Your task to perform on an android device: open sync settings in chrome Image 0: 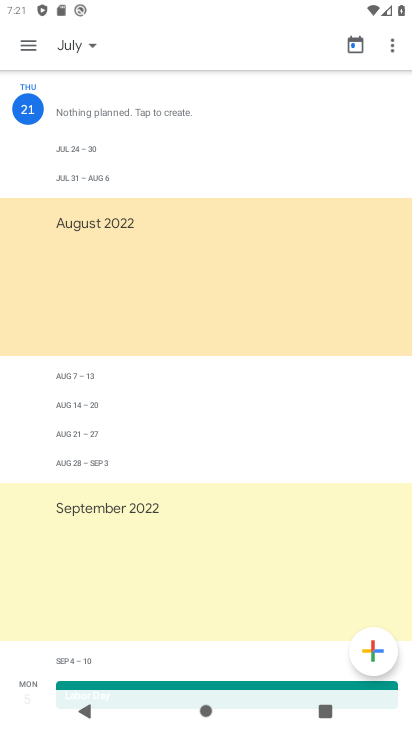
Step 0: press home button
Your task to perform on an android device: open sync settings in chrome Image 1: 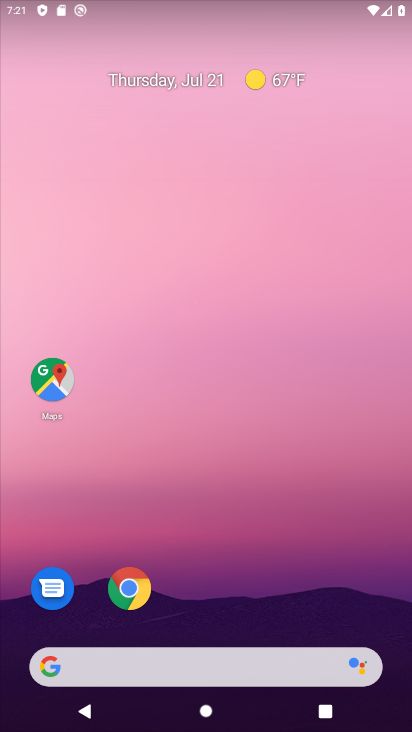
Step 1: click (135, 586)
Your task to perform on an android device: open sync settings in chrome Image 2: 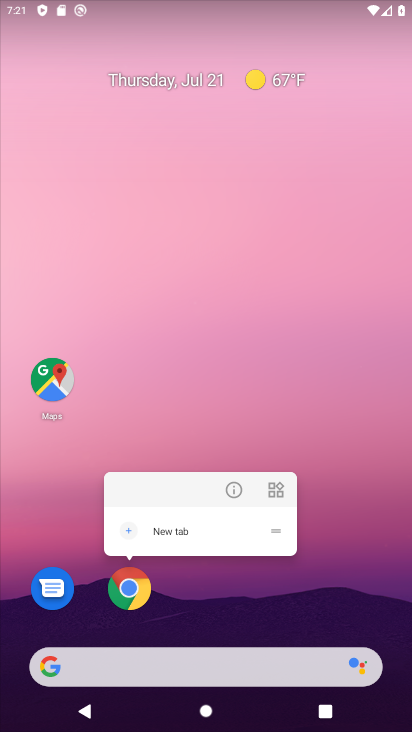
Step 2: click (135, 586)
Your task to perform on an android device: open sync settings in chrome Image 3: 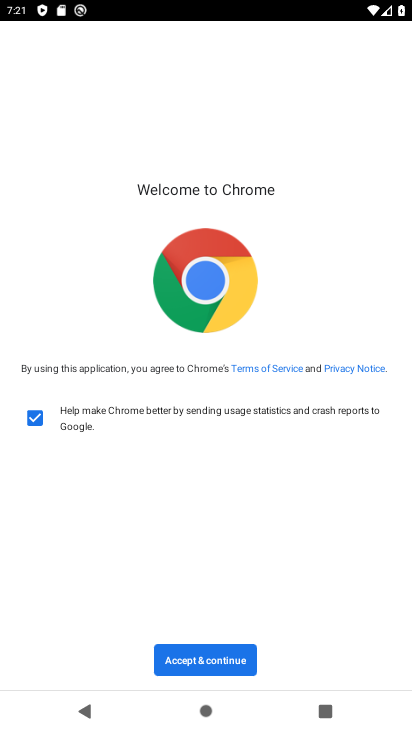
Step 3: click (232, 660)
Your task to perform on an android device: open sync settings in chrome Image 4: 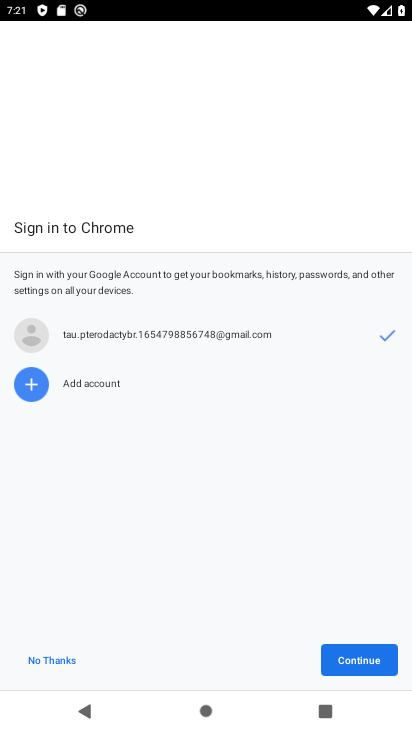
Step 4: click (368, 656)
Your task to perform on an android device: open sync settings in chrome Image 5: 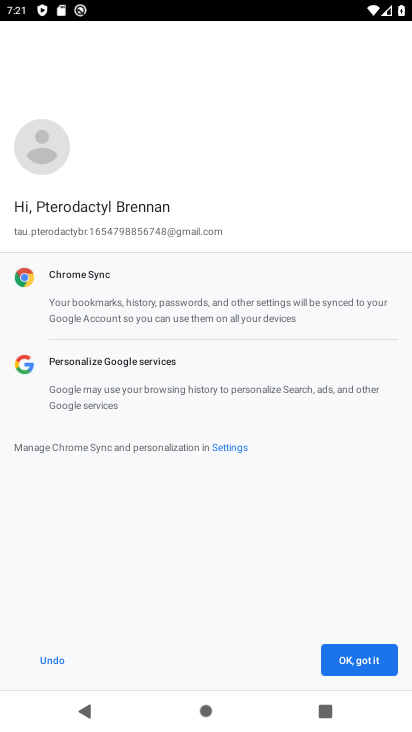
Step 5: click (352, 665)
Your task to perform on an android device: open sync settings in chrome Image 6: 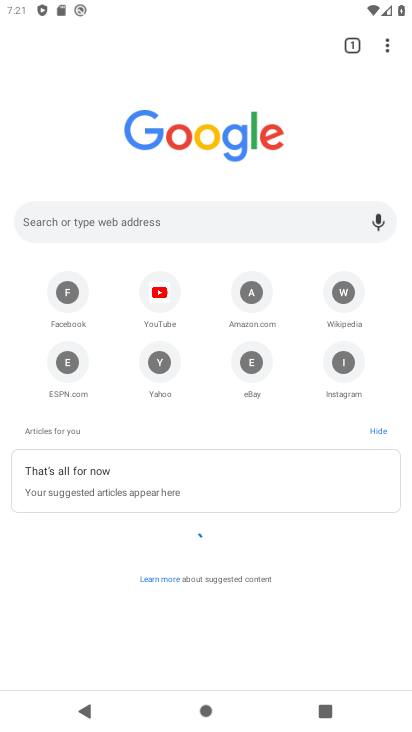
Step 6: click (387, 40)
Your task to perform on an android device: open sync settings in chrome Image 7: 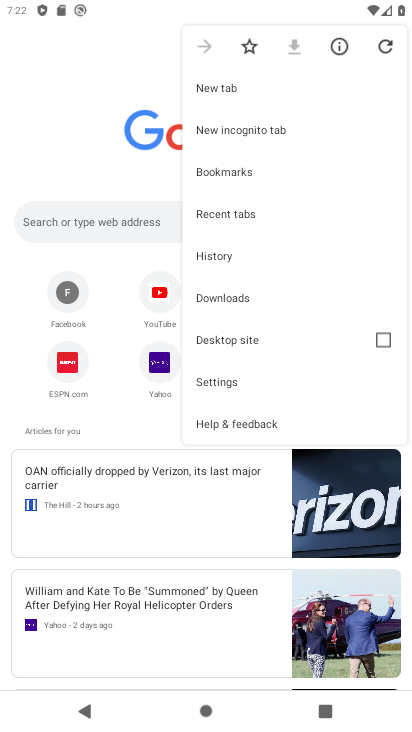
Step 7: click (233, 376)
Your task to perform on an android device: open sync settings in chrome Image 8: 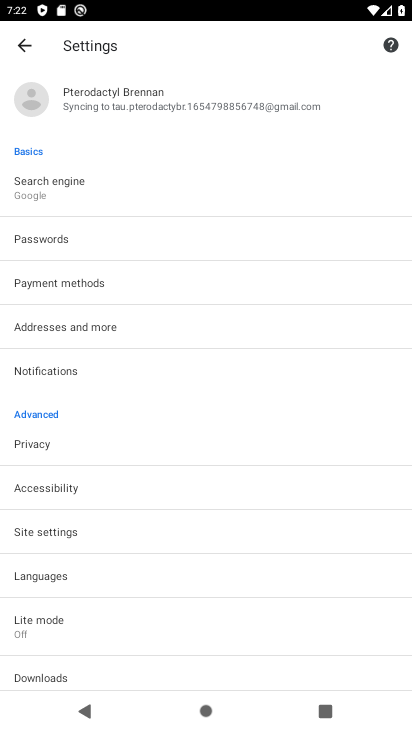
Step 8: click (175, 93)
Your task to perform on an android device: open sync settings in chrome Image 9: 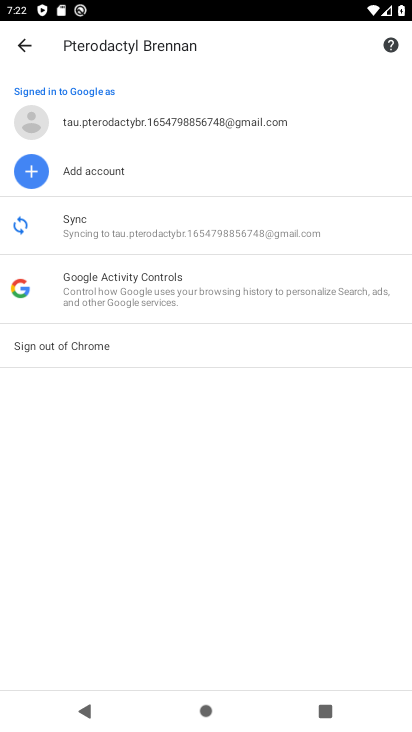
Step 9: click (134, 226)
Your task to perform on an android device: open sync settings in chrome Image 10: 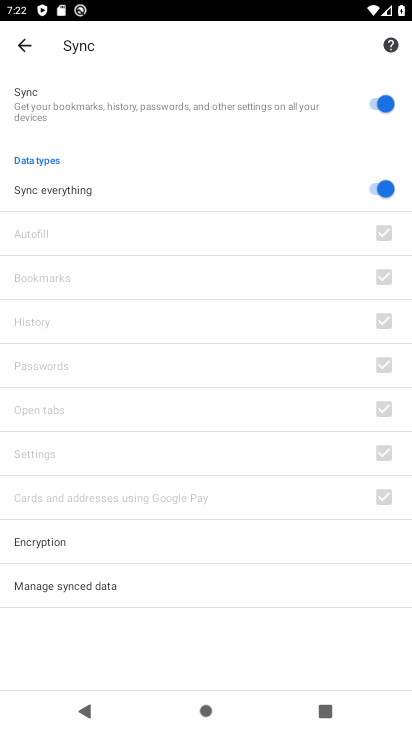
Step 10: task complete